Your task to perform on an android device: check battery use Image 0: 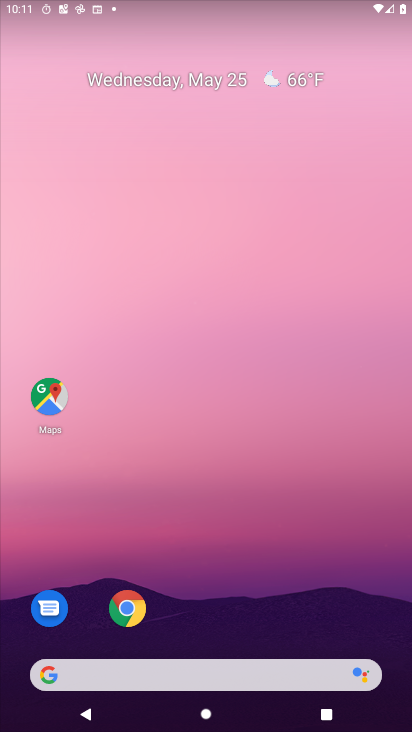
Step 0: drag from (219, 725) to (156, 64)
Your task to perform on an android device: check battery use Image 1: 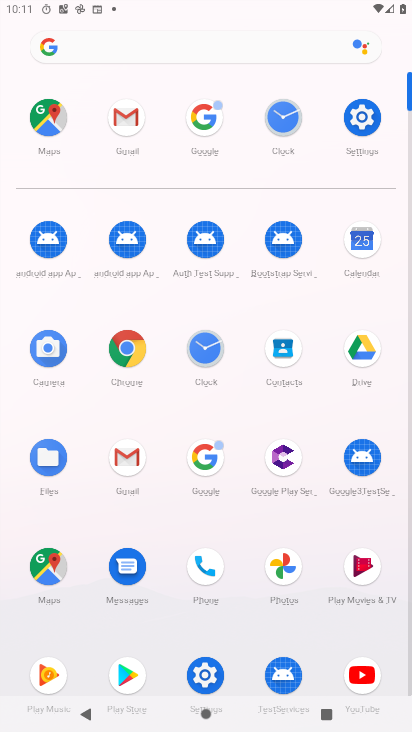
Step 1: click (368, 113)
Your task to perform on an android device: check battery use Image 2: 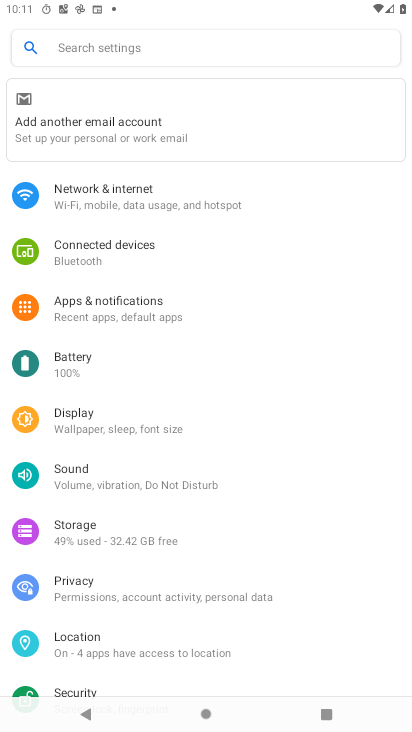
Step 2: click (71, 363)
Your task to perform on an android device: check battery use Image 3: 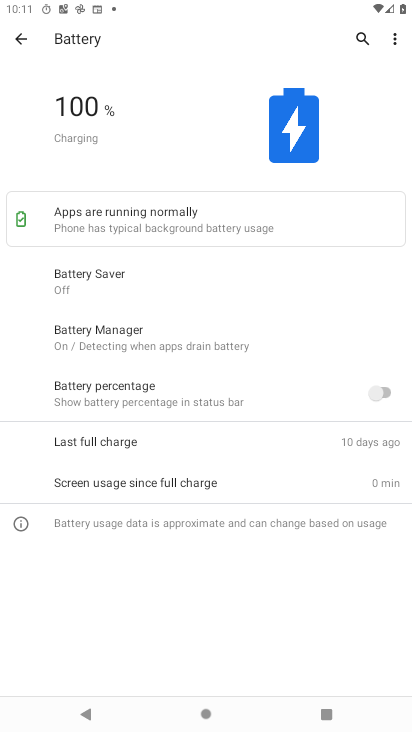
Step 3: click (393, 41)
Your task to perform on an android device: check battery use Image 4: 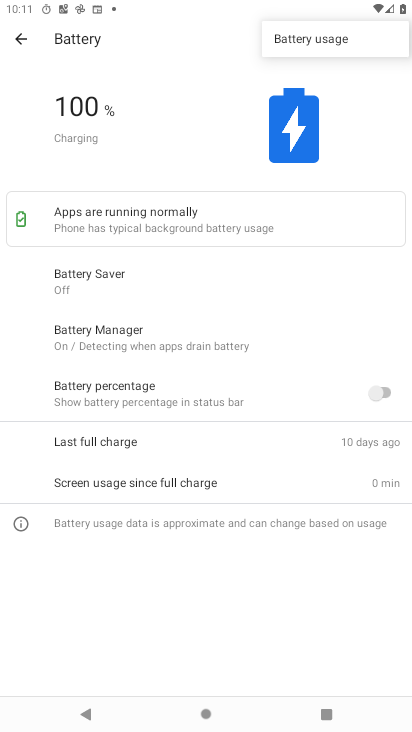
Step 4: click (310, 37)
Your task to perform on an android device: check battery use Image 5: 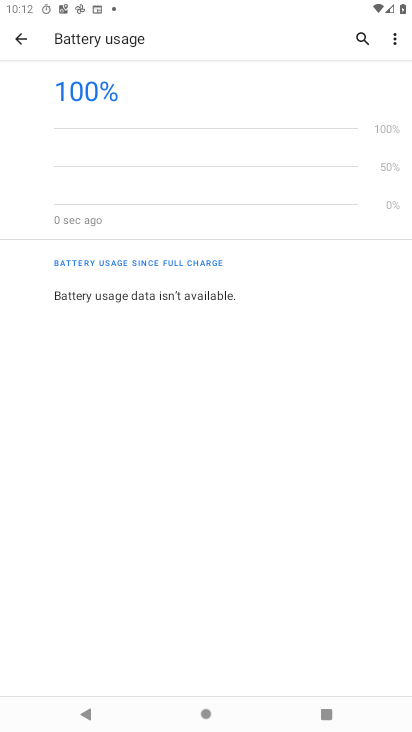
Step 5: task complete